Your task to perform on an android device: Open settings on Google Maps Image 0: 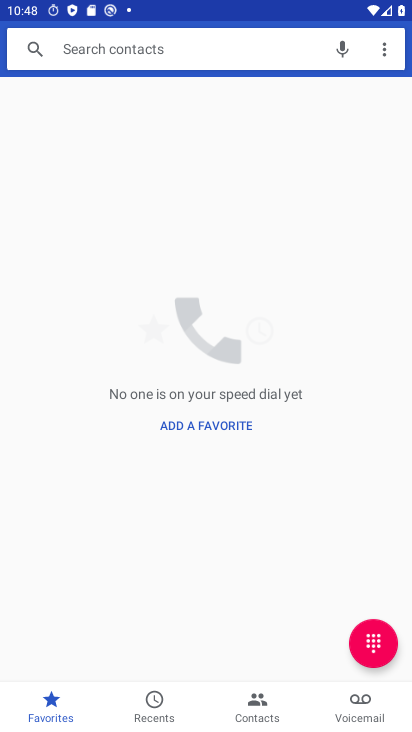
Step 0: press home button
Your task to perform on an android device: Open settings on Google Maps Image 1: 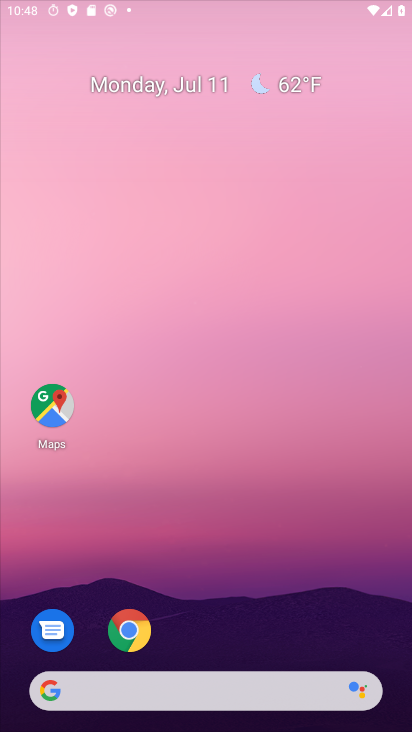
Step 1: drag from (257, 683) to (318, 2)
Your task to perform on an android device: Open settings on Google Maps Image 2: 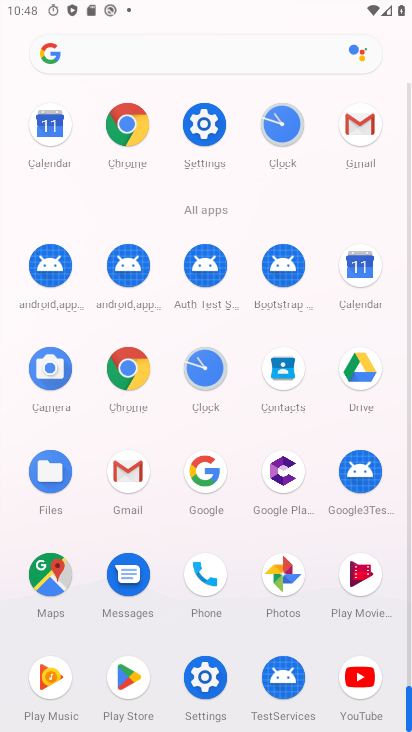
Step 2: click (57, 575)
Your task to perform on an android device: Open settings on Google Maps Image 3: 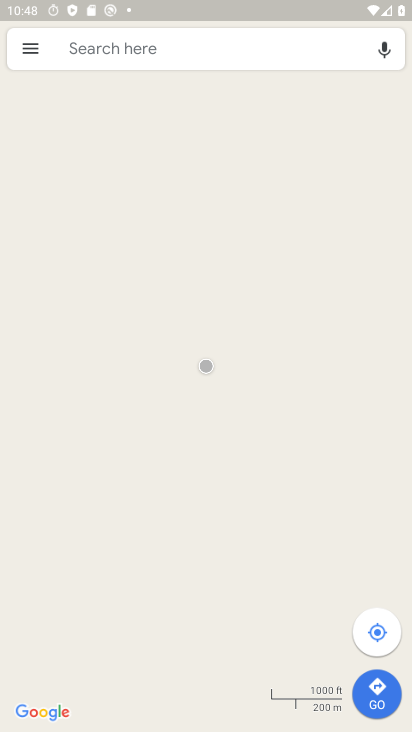
Step 3: click (34, 43)
Your task to perform on an android device: Open settings on Google Maps Image 4: 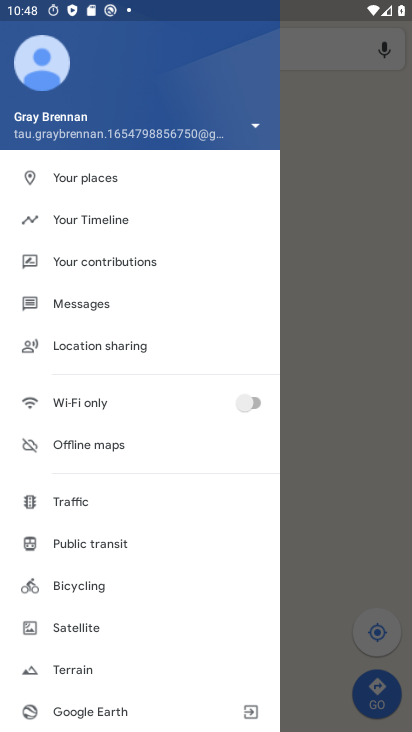
Step 4: click (113, 216)
Your task to perform on an android device: Open settings on Google Maps Image 5: 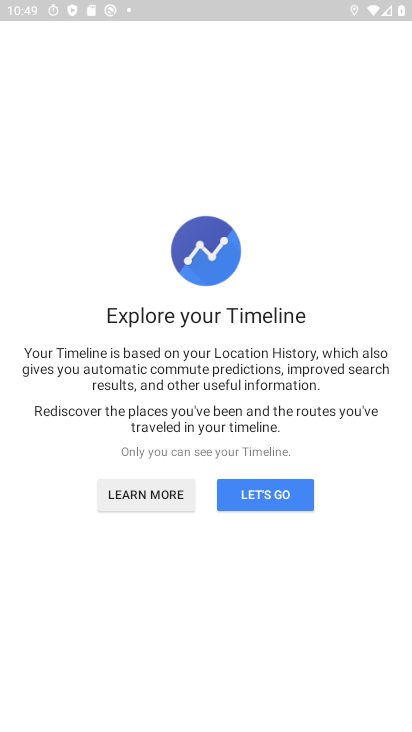
Step 5: click (279, 489)
Your task to perform on an android device: Open settings on Google Maps Image 6: 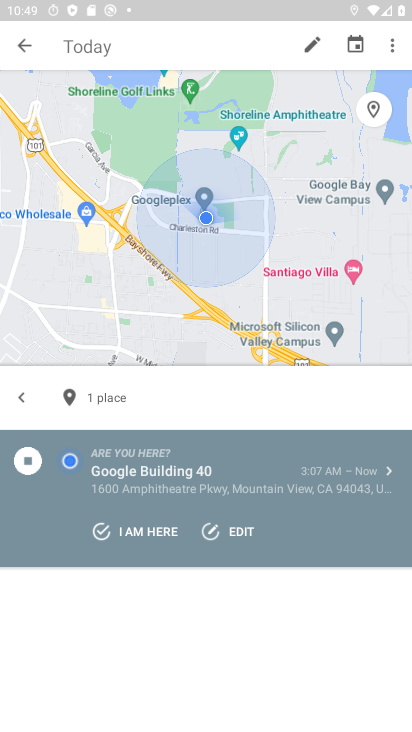
Step 6: click (386, 38)
Your task to perform on an android device: Open settings on Google Maps Image 7: 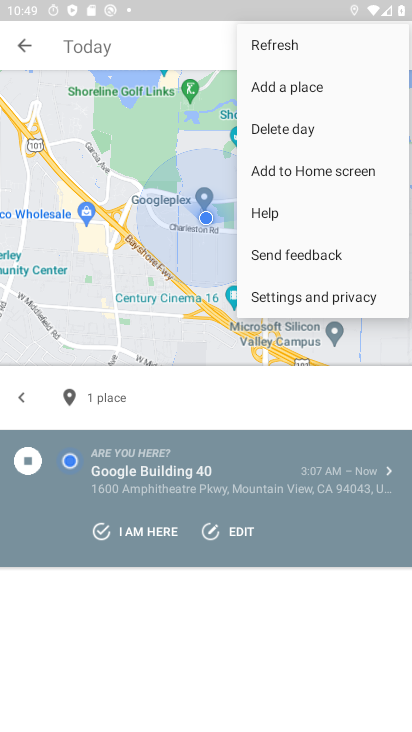
Step 7: click (329, 284)
Your task to perform on an android device: Open settings on Google Maps Image 8: 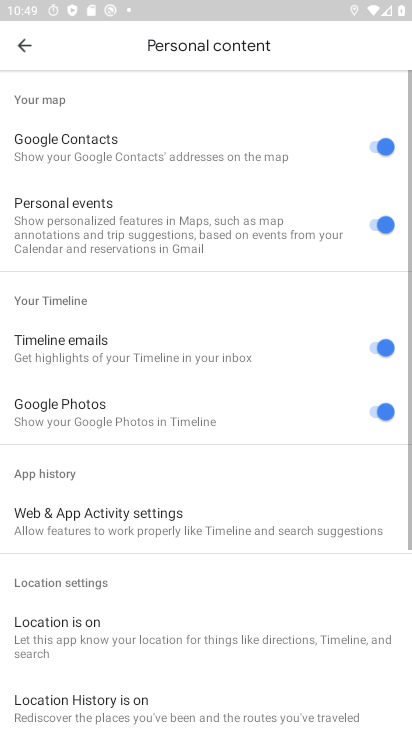
Step 8: task complete